Your task to perform on an android device: Open Android settings Image 0: 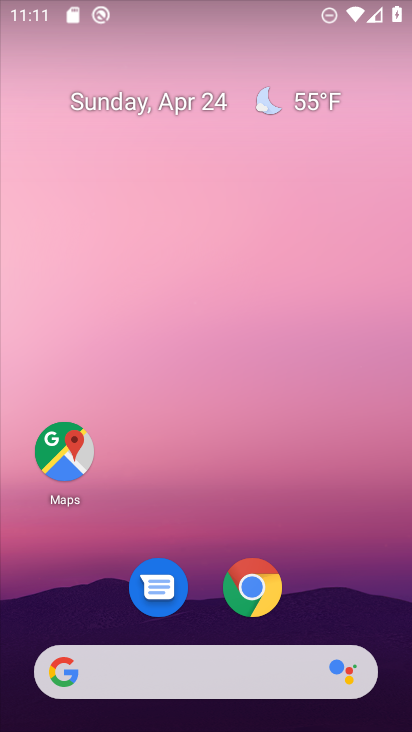
Step 0: drag from (304, 581) to (365, 110)
Your task to perform on an android device: Open Android settings Image 1: 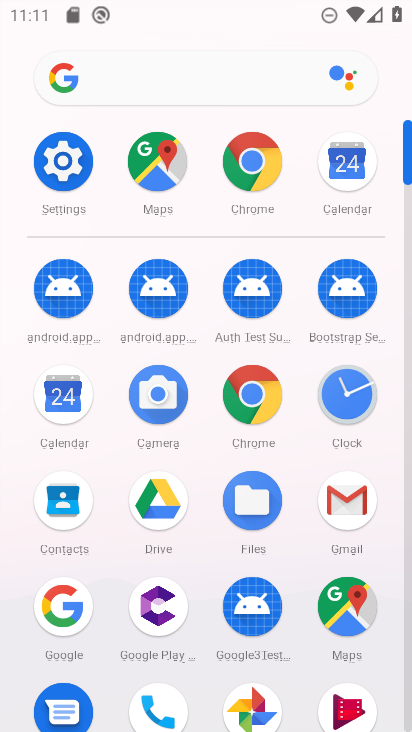
Step 1: click (74, 147)
Your task to perform on an android device: Open Android settings Image 2: 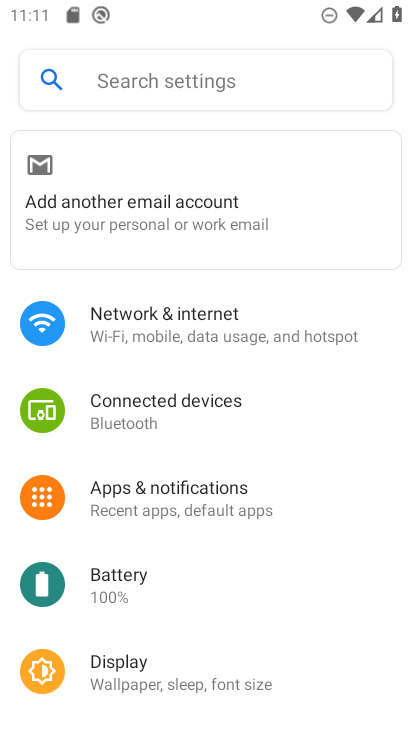
Step 2: task complete